Your task to perform on an android device: open app "LinkedIn" (install if not already installed) Image 0: 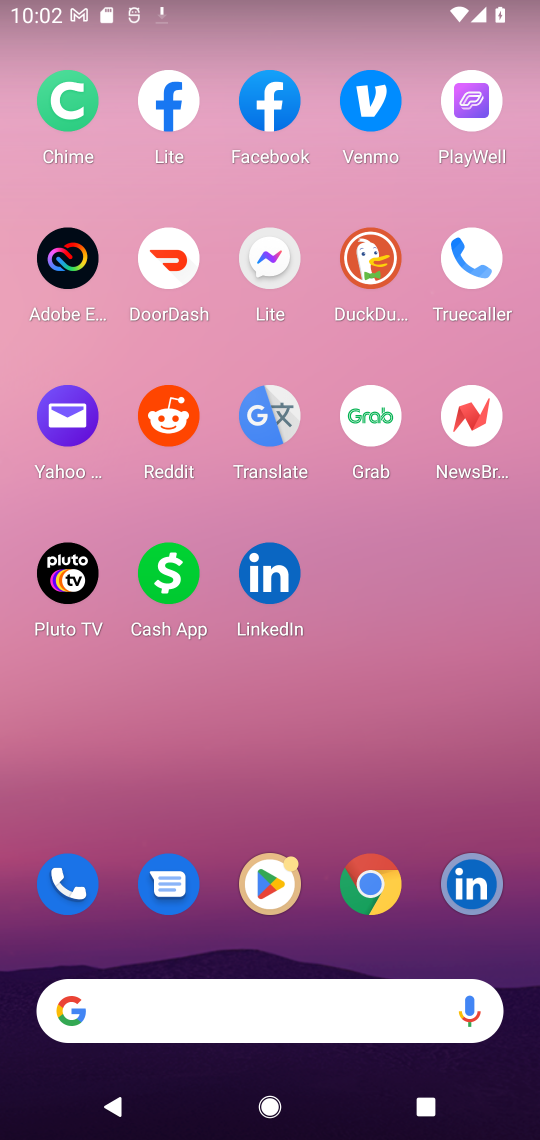
Step 0: click (290, 876)
Your task to perform on an android device: open app "LinkedIn" (install if not already installed) Image 1: 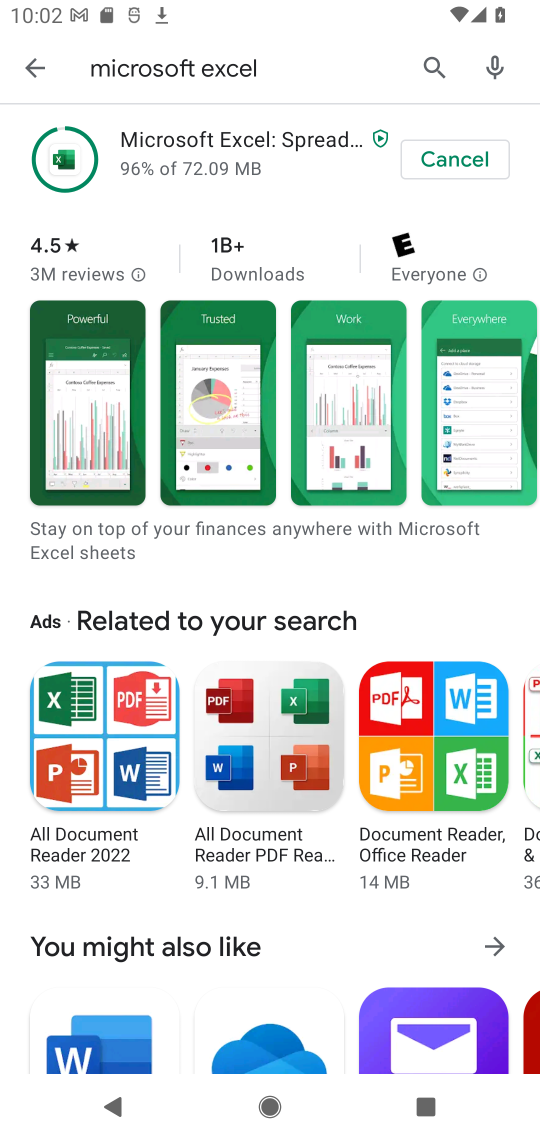
Step 1: press home button
Your task to perform on an android device: open app "LinkedIn" (install if not already installed) Image 2: 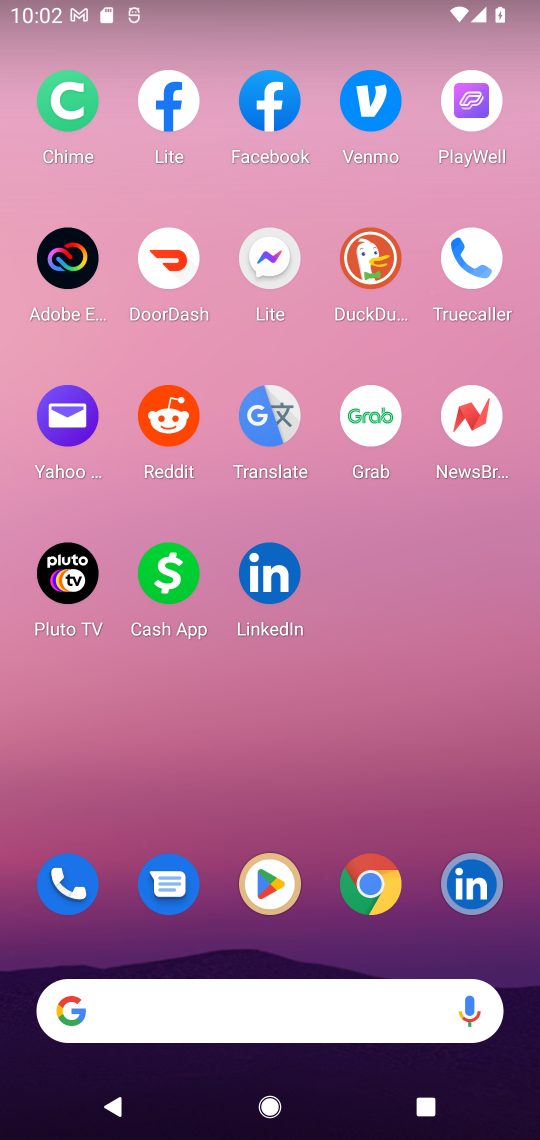
Step 2: click (476, 883)
Your task to perform on an android device: open app "LinkedIn" (install if not already installed) Image 3: 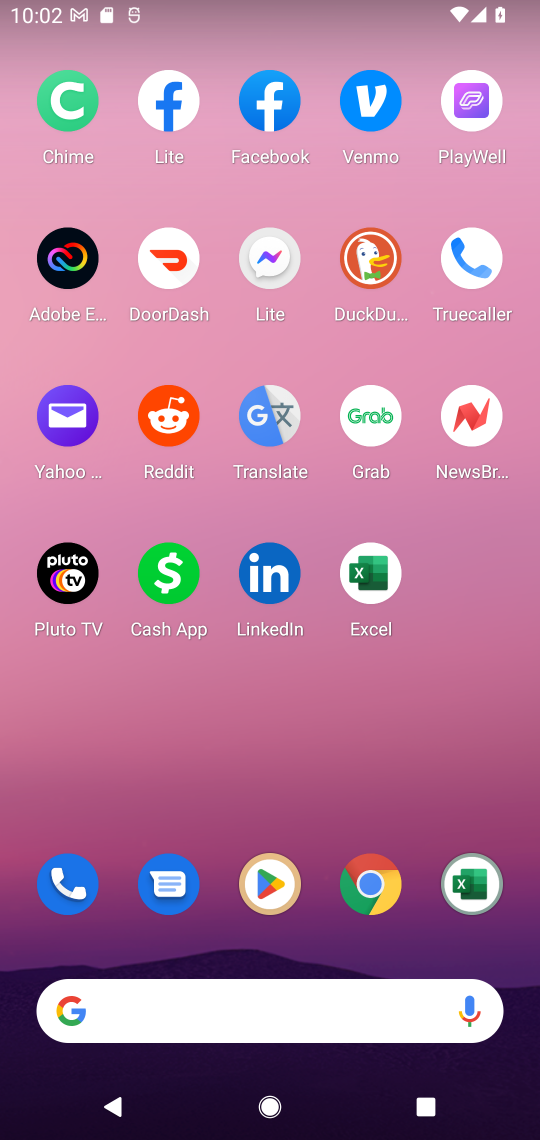
Step 3: task complete